Your task to perform on an android device: Open sound settings Image 0: 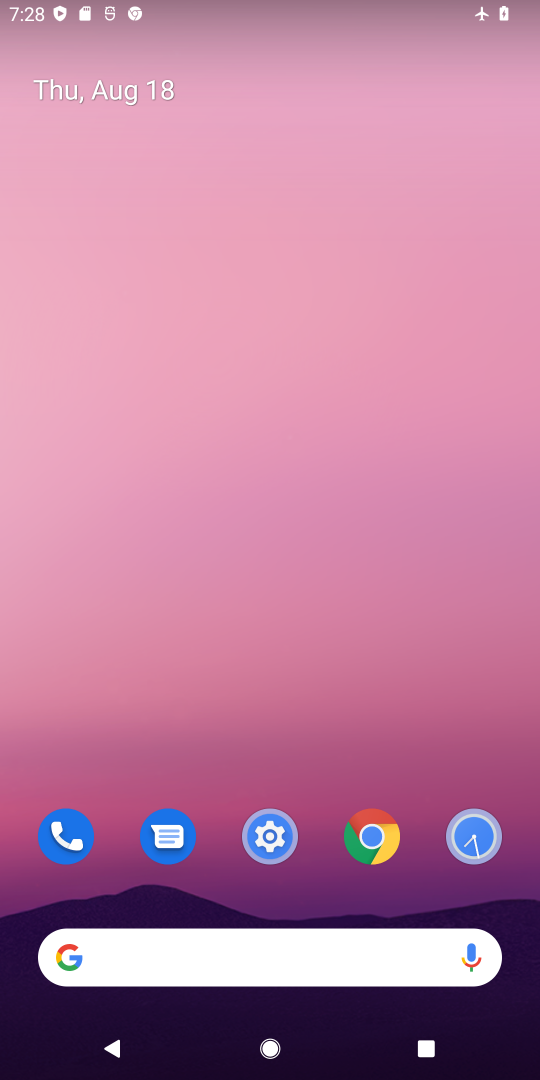
Step 0: drag from (306, 757) to (321, 28)
Your task to perform on an android device: Open sound settings Image 1: 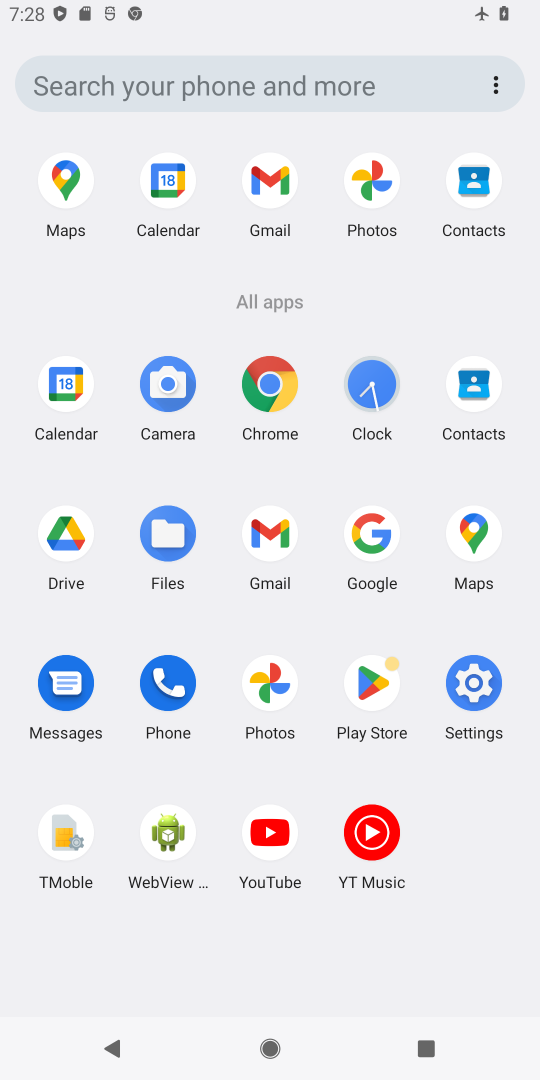
Step 1: click (485, 699)
Your task to perform on an android device: Open sound settings Image 2: 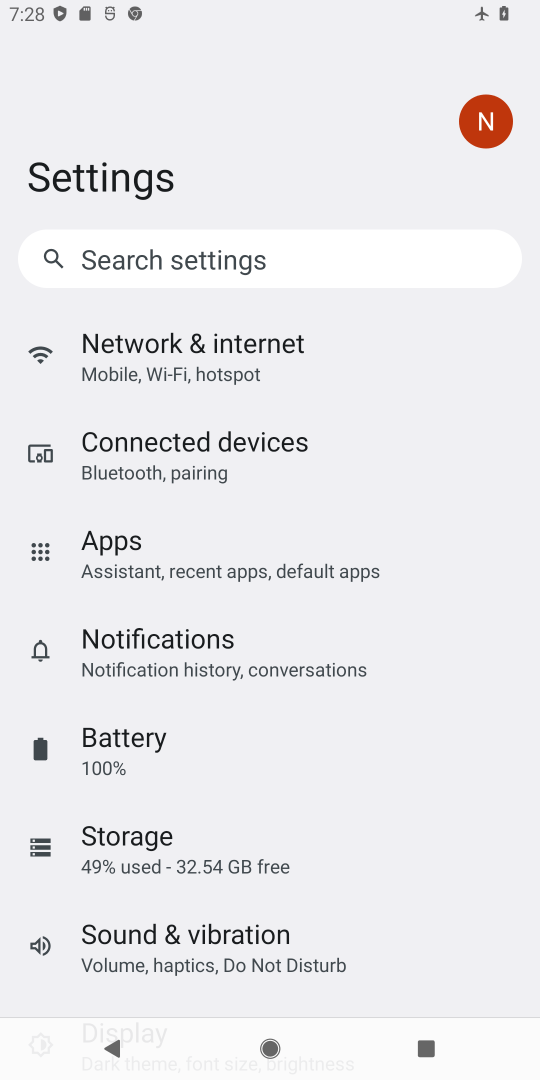
Step 2: drag from (316, 833) to (353, 75)
Your task to perform on an android device: Open sound settings Image 3: 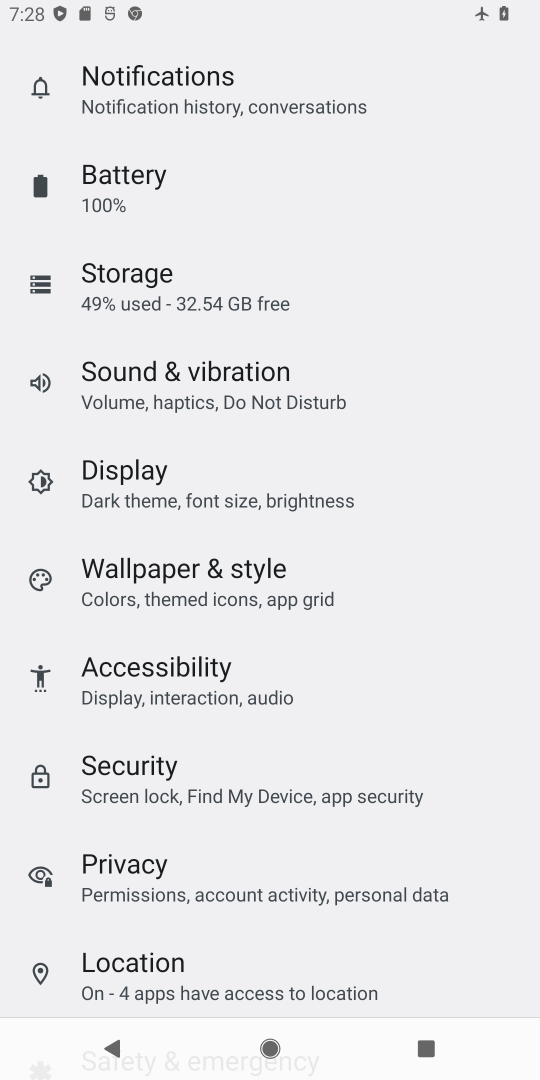
Step 3: drag from (422, 760) to (456, 949)
Your task to perform on an android device: Open sound settings Image 4: 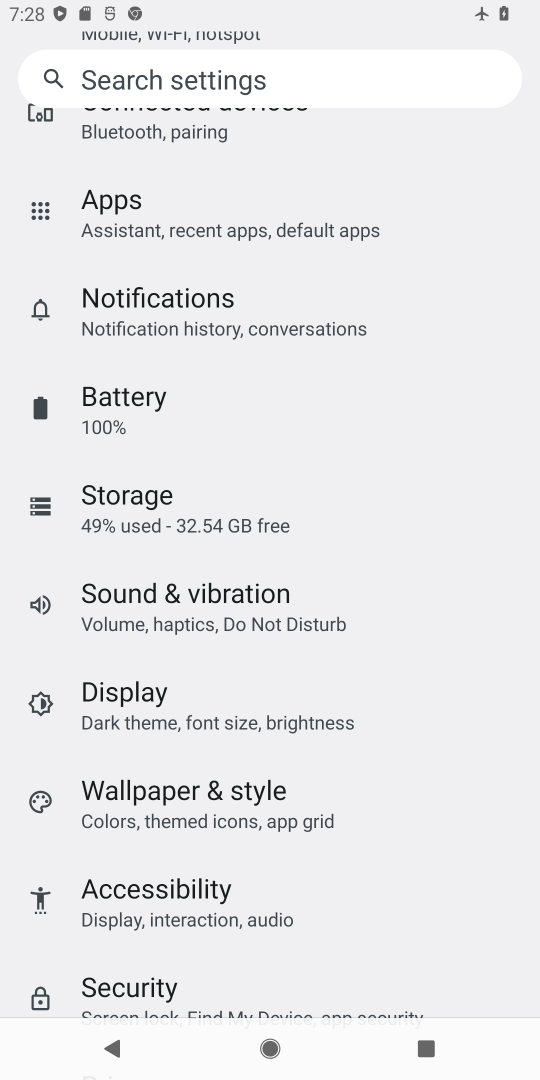
Step 4: click (440, 246)
Your task to perform on an android device: Open sound settings Image 5: 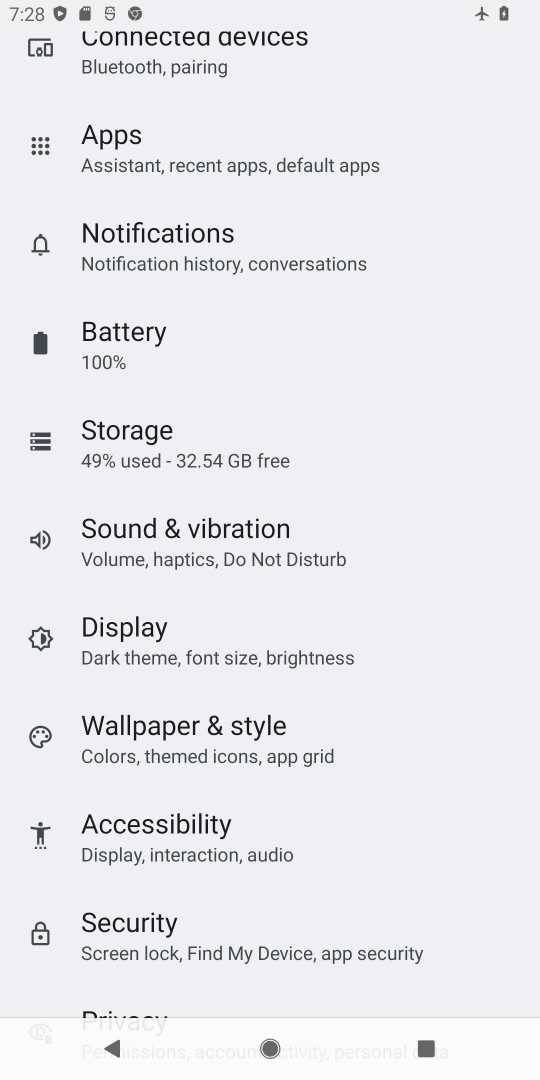
Step 5: drag from (414, 909) to (436, 70)
Your task to perform on an android device: Open sound settings Image 6: 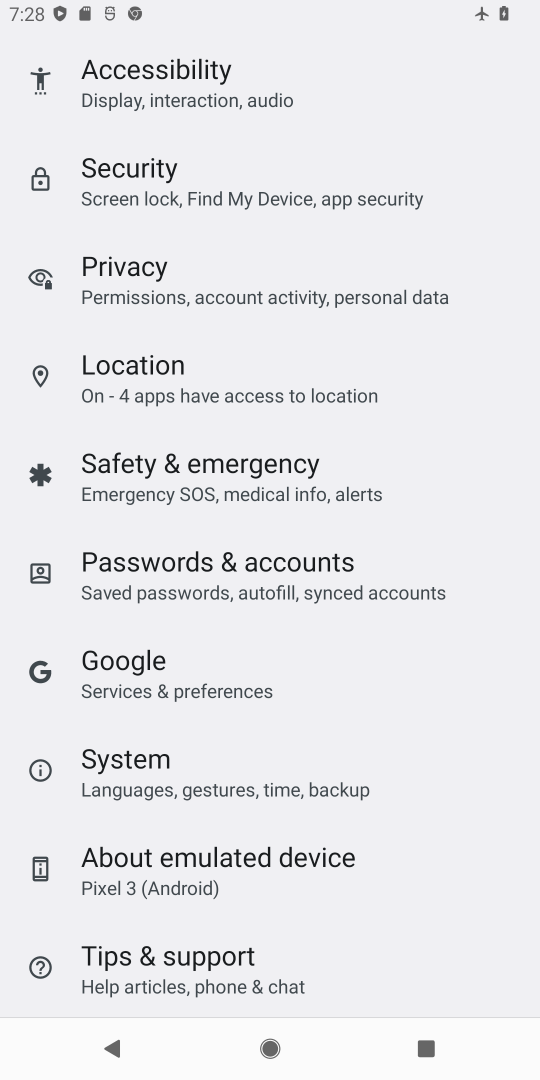
Step 6: drag from (430, 817) to (421, 138)
Your task to perform on an android device: Open sound settings Image 7: 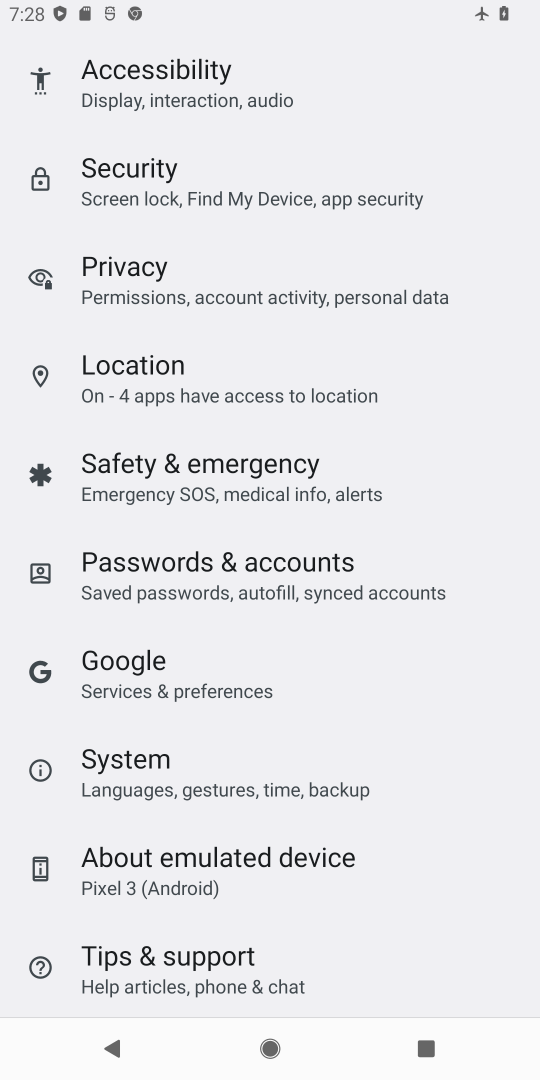
Step 7: drag from (407, 262) to (422, 1029)
Your task to perform on an android device: Open sound settings Image 8: 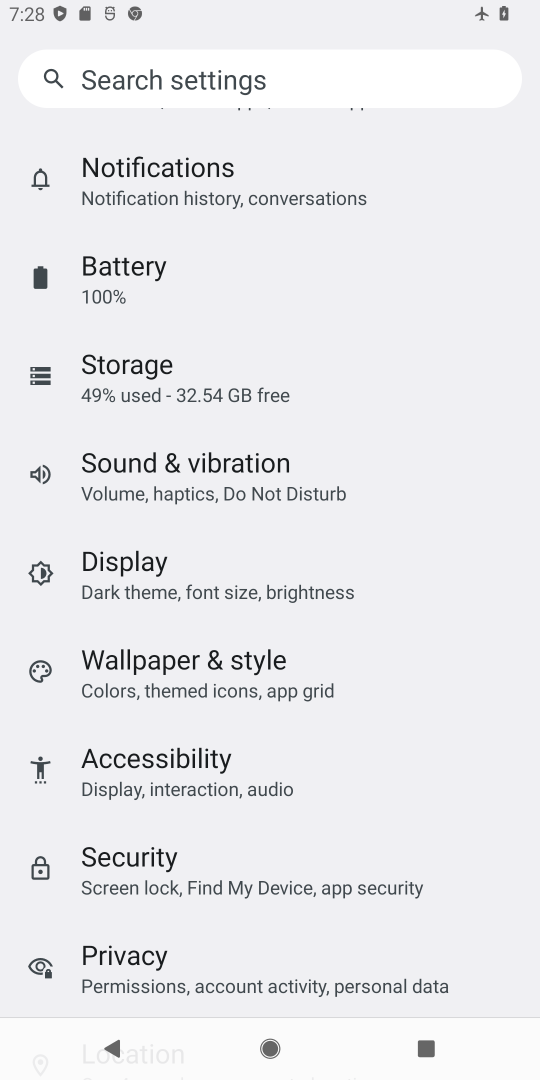
Step 8: drag from (331, 264) to (418, 997)
Your task to perform on an android device: Open sound settings Image 9: 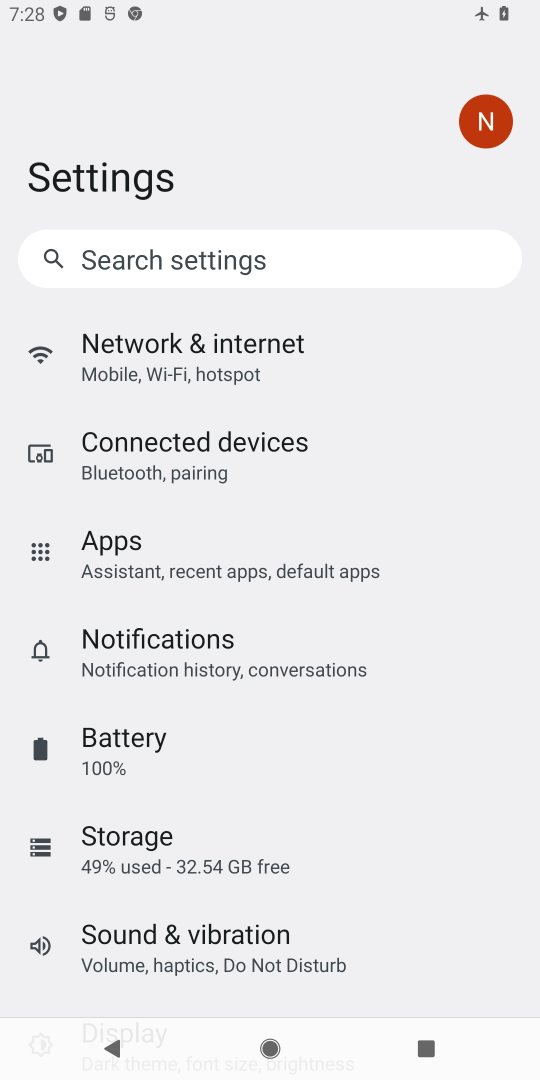
Step 9: drag from (287, 817) to (390, 381)
Your task to perform on an android device: Open sound settings Image 10: 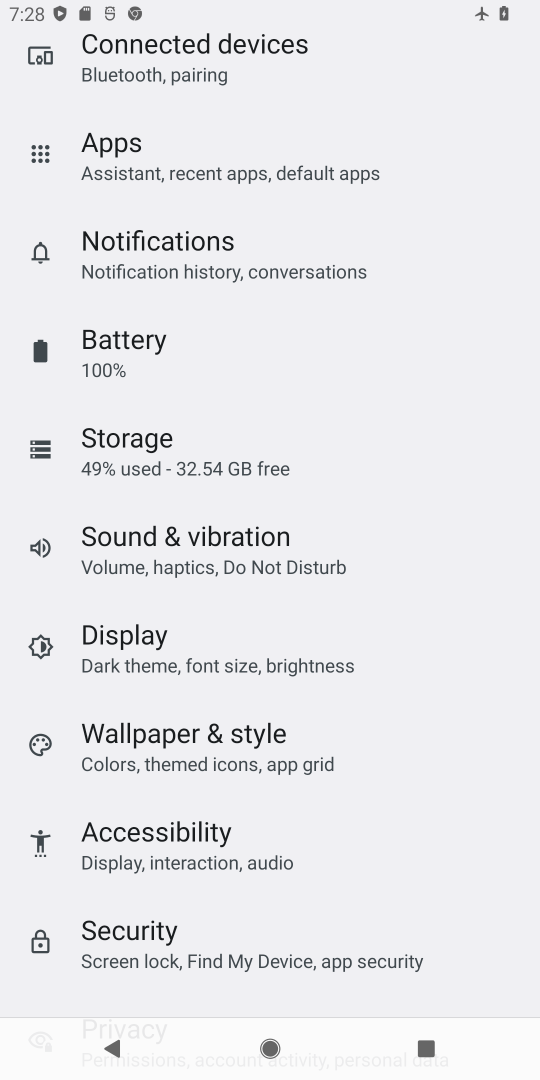
Step 10: click (192, 568)
Your task to perform on an android device: Open sound settings Image 11: 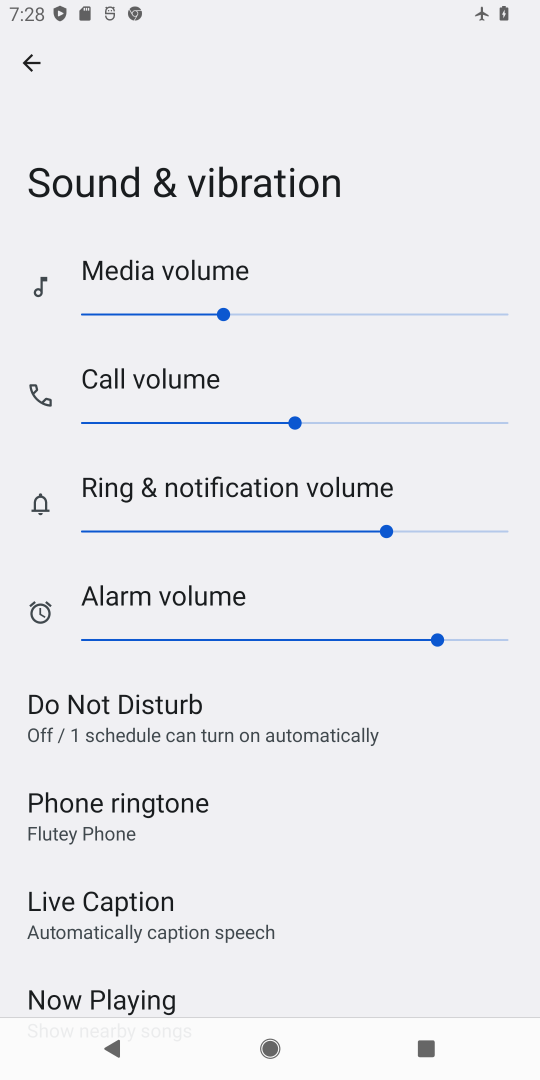
Step 11: task complete